Your task to perform on an android device: Go to Maps Image 0: 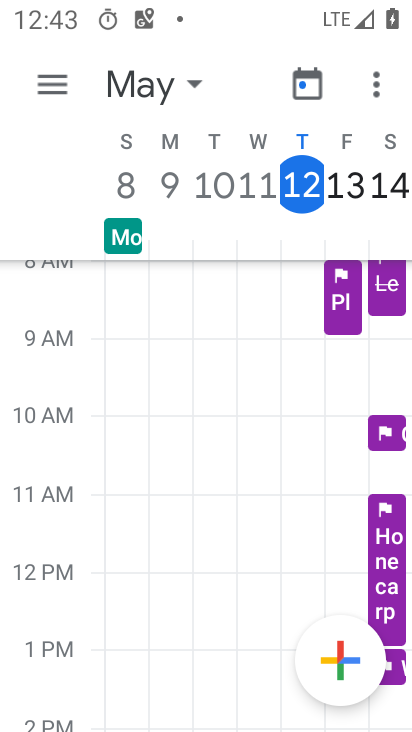
Step 0: press home button
Your task to perform on an android device: Go to Maps Image 1: 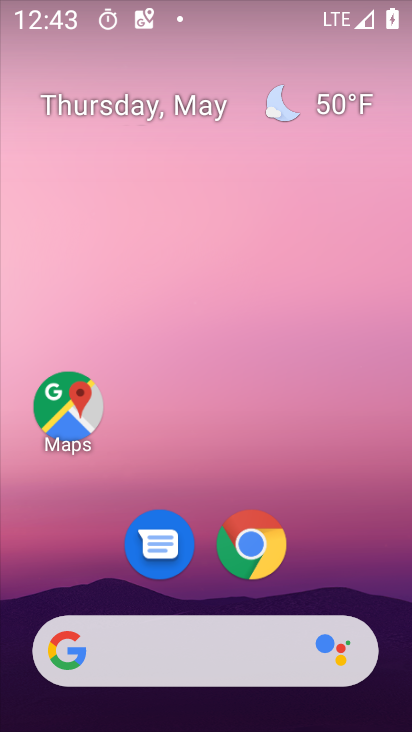
Step 1: click (77, 417)
Your task to perform on an android device: Go to Maps Image 2: 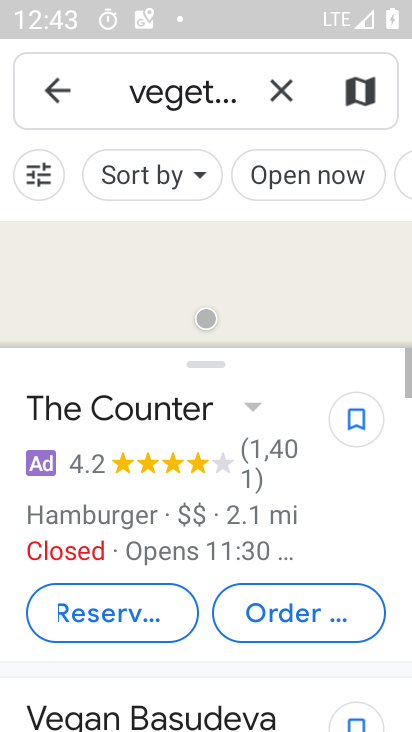
Step 2: task complete